Your task to perform on an android device: turn on priority inbox in the gmail app Image 0: 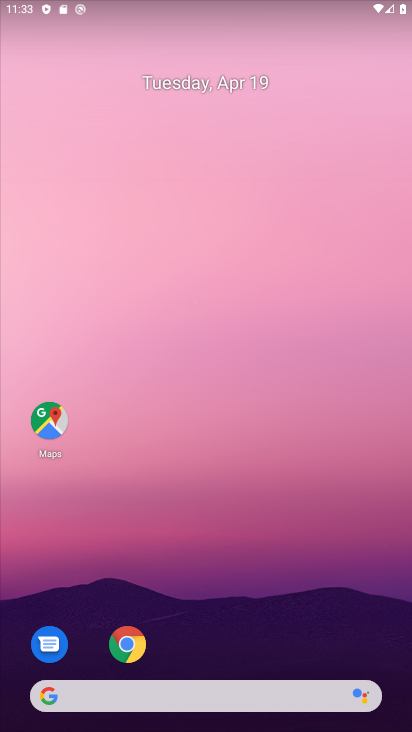
Step 0: drag from (214, 575) to (219, 163)
Your task to perform on an android device: turn on priority inbox in the gmail app Image 1: 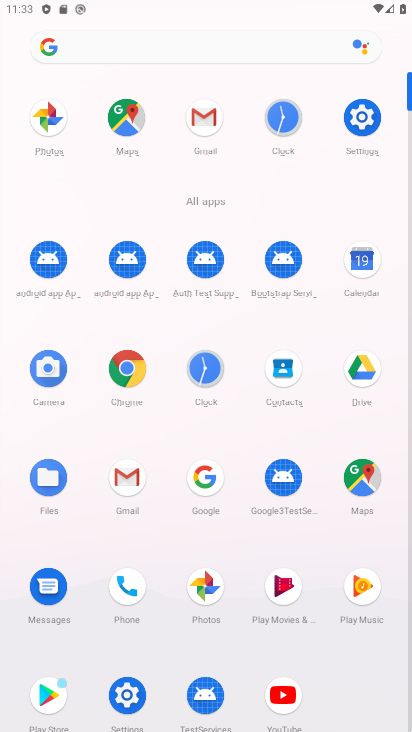
Step 1: click (204, 127)
Your task to perform on an android device: turn on priority inbox in the gmail app Image 2: 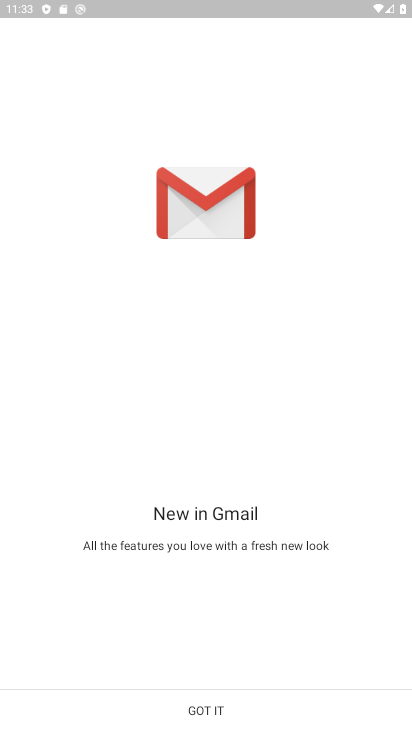
Step 2: click (241, 700)
Your task to perform on an android device: turn on priority inbox in the gmail app Image 3: 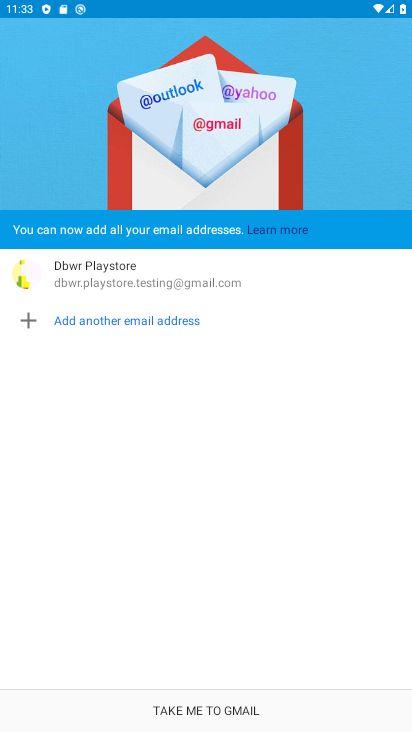
Step 3: click (231, 696)
Your task to perform on an android device: turn on priority inbox in the gmail app Image 4: 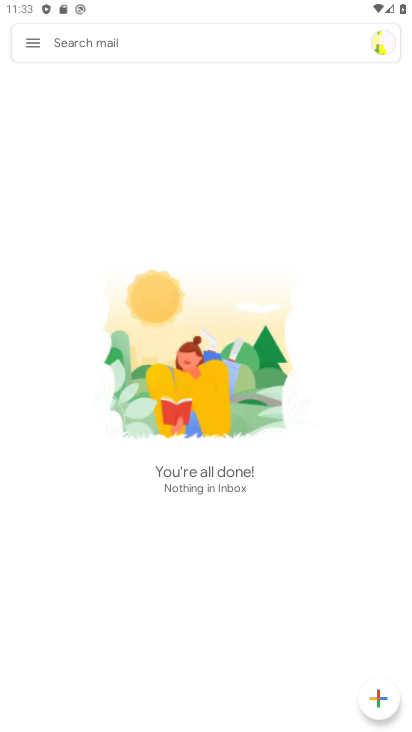
Step 4: click (32, 45)
Your task to perform on an android device: turn on priority inbox in the gmail app Image 5: 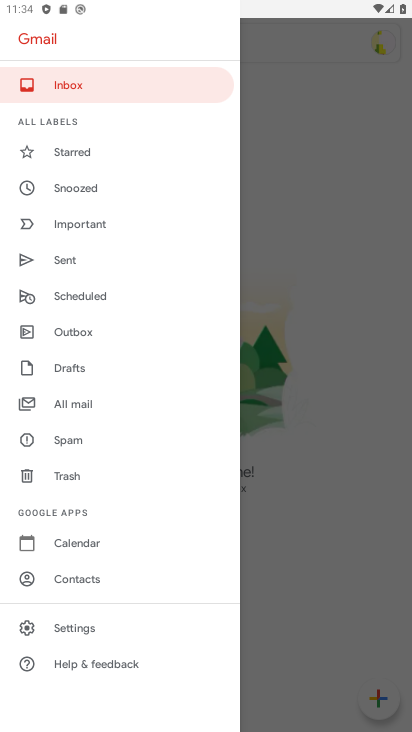
Step 5: click (108, 630)
Your task to perform on an android device: turn on priority inbox in the gmail app Image 6: 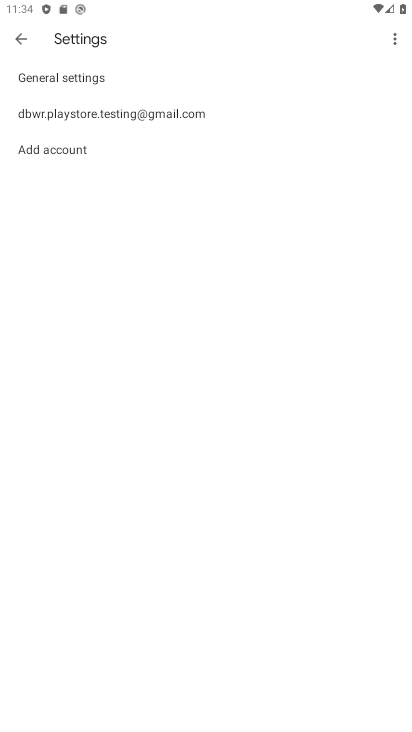
Step 6: click (141, 112)
Your task to perform on an android device: turn on priority inbox in the gmail app Image 7: 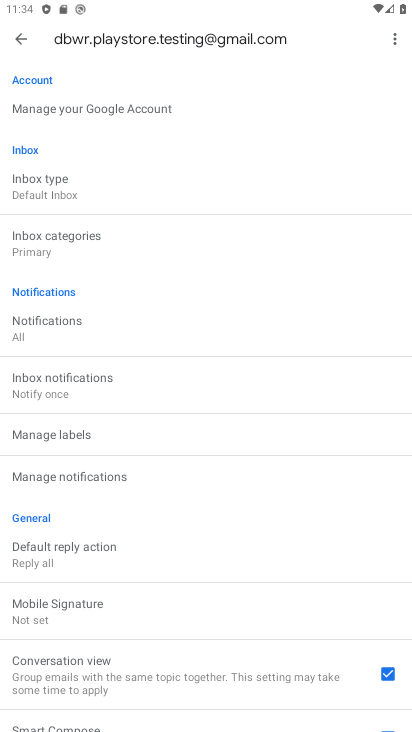
Step 7: click (90, 184)
Your task to perform on an android device: turn on priority inbox in the gmail app Image 8: 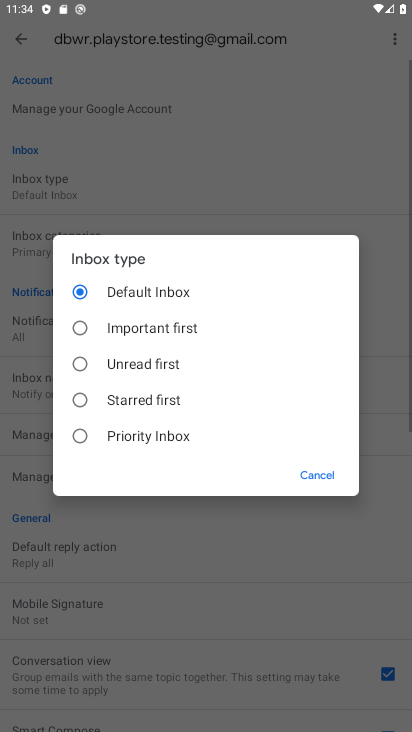
Step 8: click (126, 439)
Your task to perform on an android device: turn on priority inbox in the gmail app Image 9: 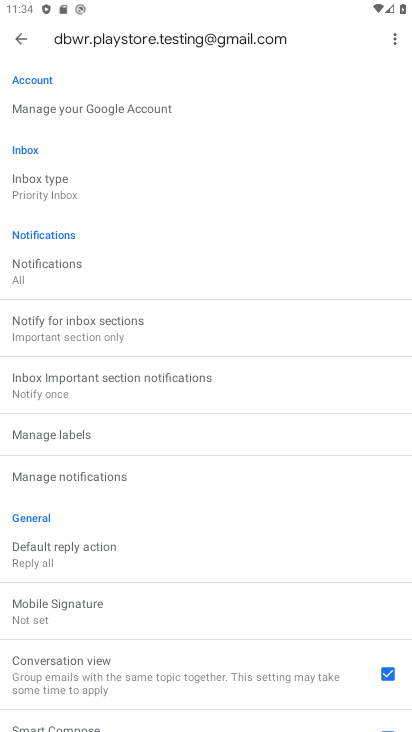
Step 9: task complete